Your task to perform on an android device: change keyboard looks Image 0: 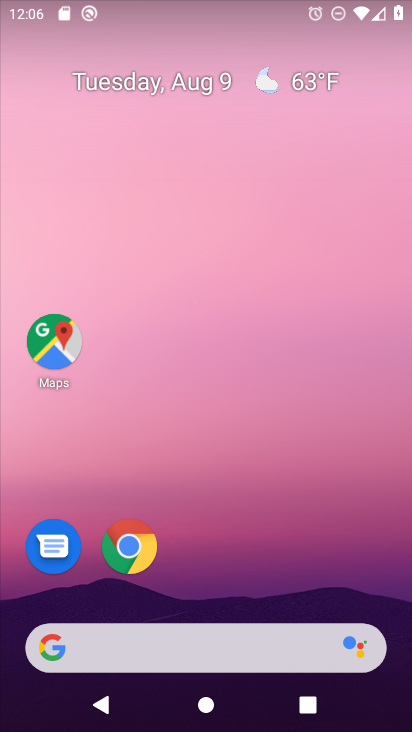
Step 0: press home button
Your task to perform on an android device: change keyboard looks Image 1: 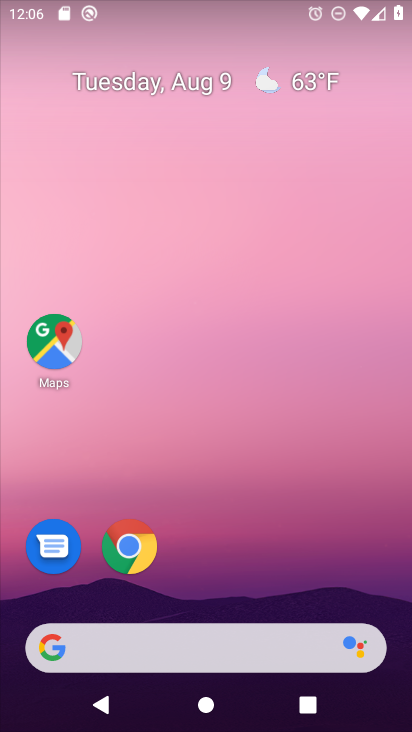
Step 1: drag from (216, 607) to (253, 74)
Your task to perform on an android device: change keyboard looks Image 2: 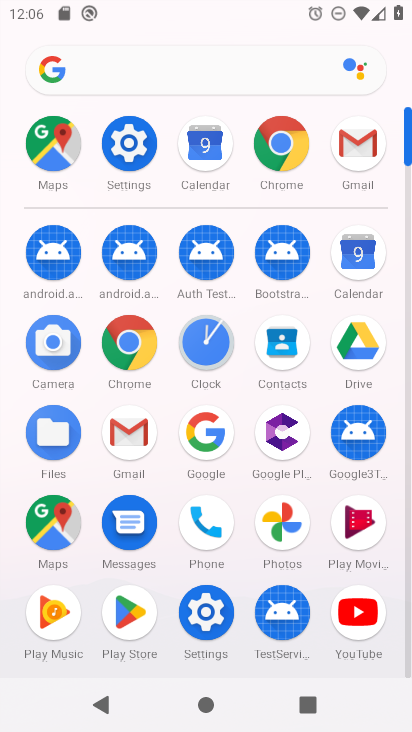
Step 2: click (126, 145)
Your task to perform on an android device: change keyboard looks Image 3: 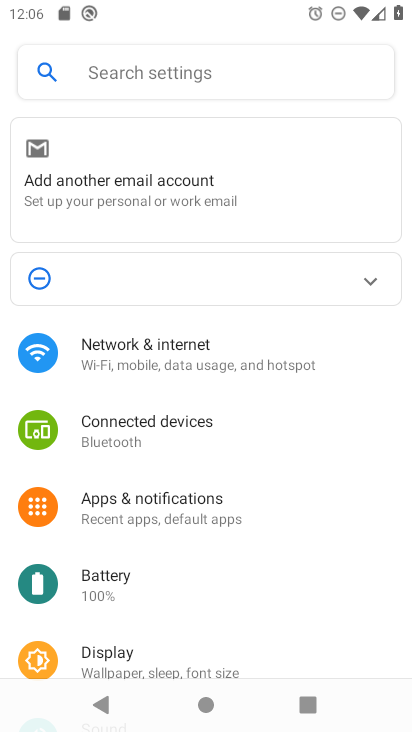
Step 3: drag from (222, 627) to (247, 121)
Your task to perform on an android device: change keyboard looks Image 4: 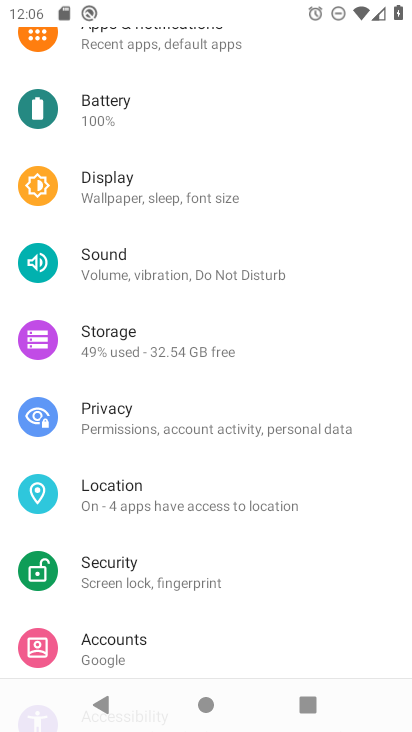
Step 4: drag from (192, 641) to (206, 111)
Your task to perform on an android device: change keyboard looks Image 5: 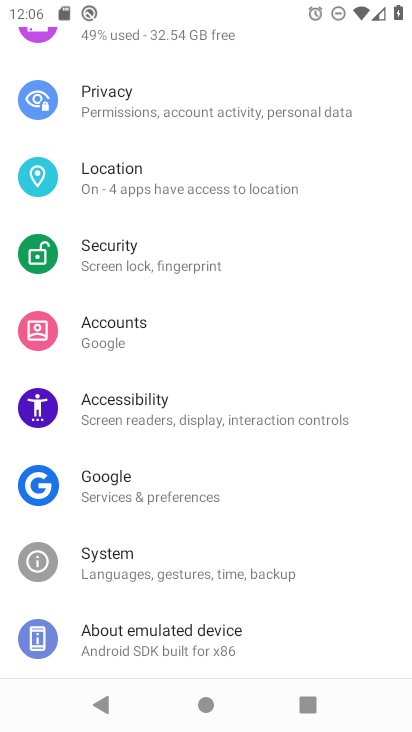
Step 5: click (140, 563)
Your task to perform on an android device: change keyboard looks Image 6: 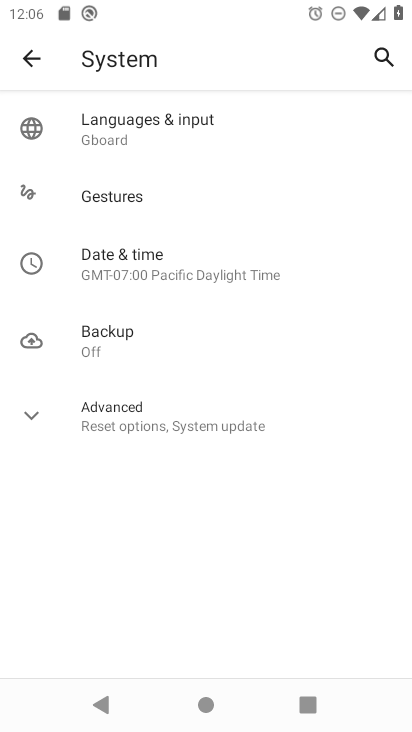
Step 6: click (30, 412)
Your task to perform on an android device: change keyboard looks Image 7: 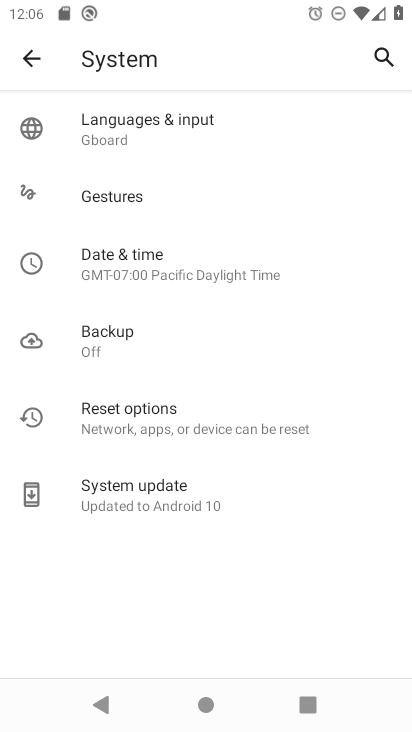
Step 7: click (146, 131)
Your task to perform on an android device: change keyboard looks Image 8: 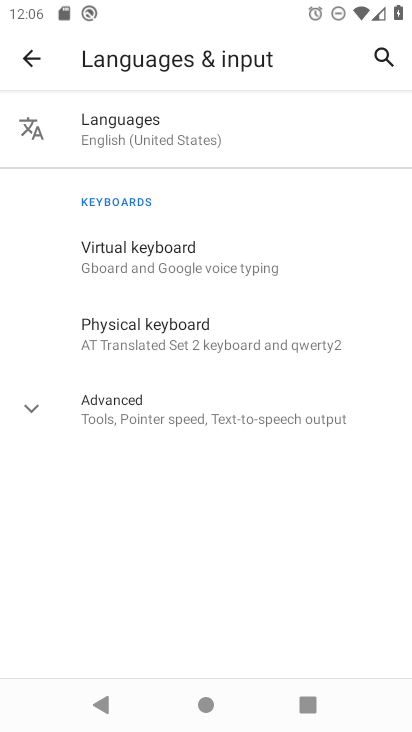
Step 8: click (207, 247)
Your task to perform on an android device: change keyboard looks Image 9: 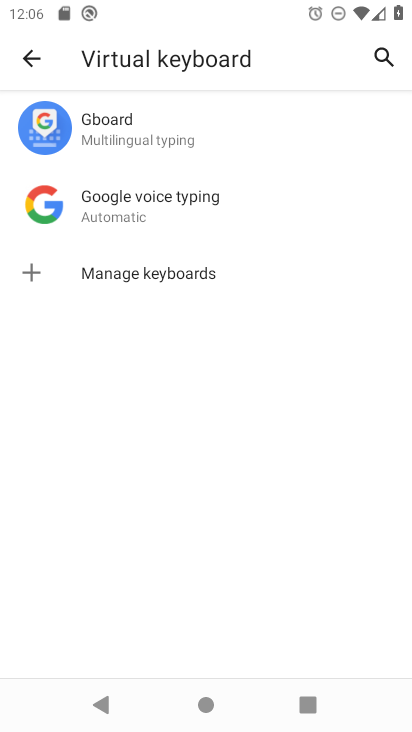
Step 9: click (150, 119)
Your task to perform on an android device: change keyboard looks Image 10: 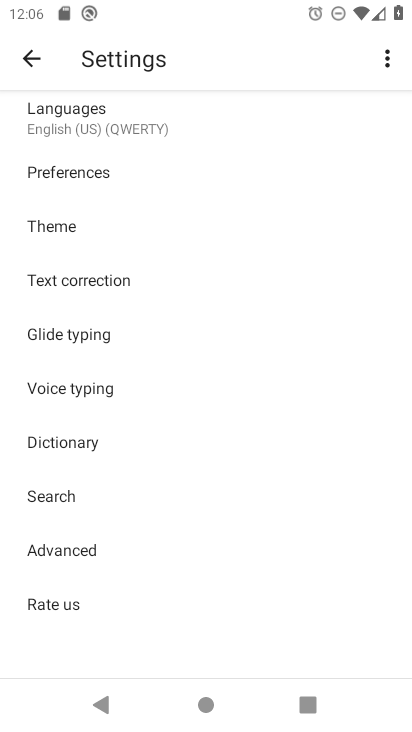
Step 10: click (82, 230)
Your task to perform on an android device: change keyboard looks Image 11: 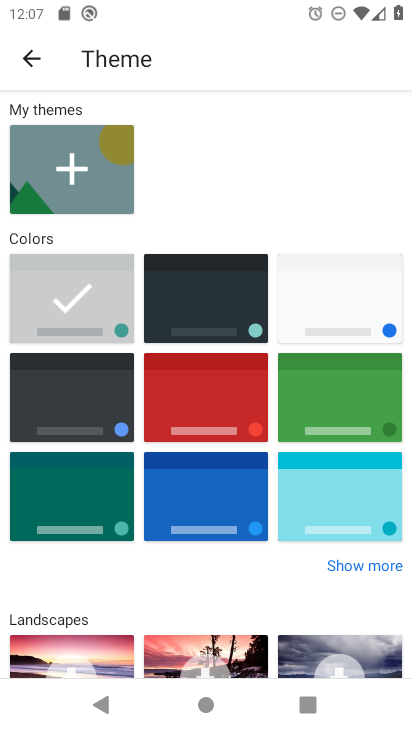
Step 11: click (194, 387)
Your task to perform on an android device: change keyboard looks Image 12: 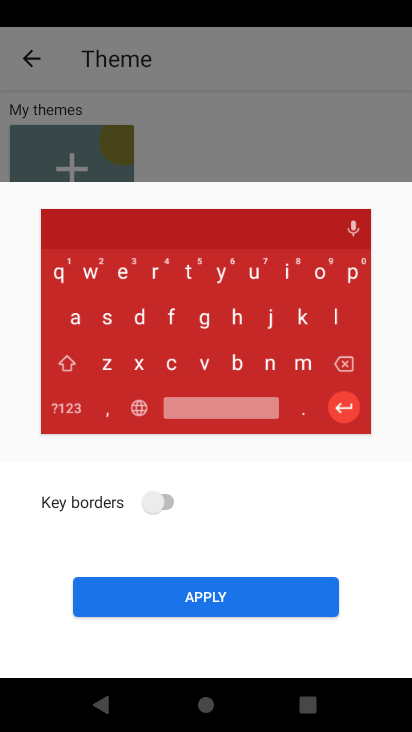
Step 12: click (201, 595)
Your task to perform on an android device: change keyboard looks Image 13: 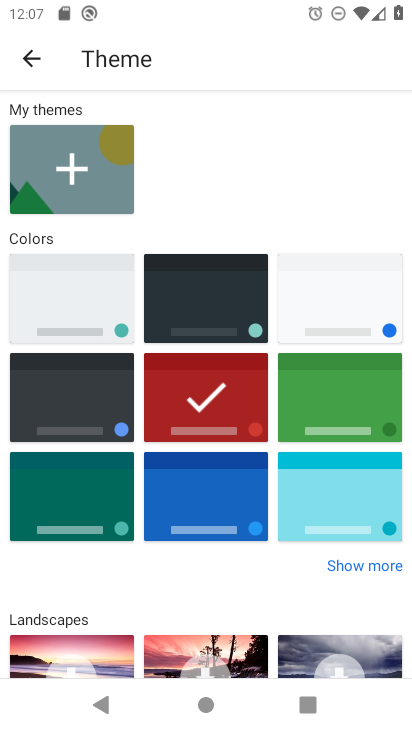
Step 13: task complete